Your task to perform on an android device: turn on improve location accuracy Image 0: 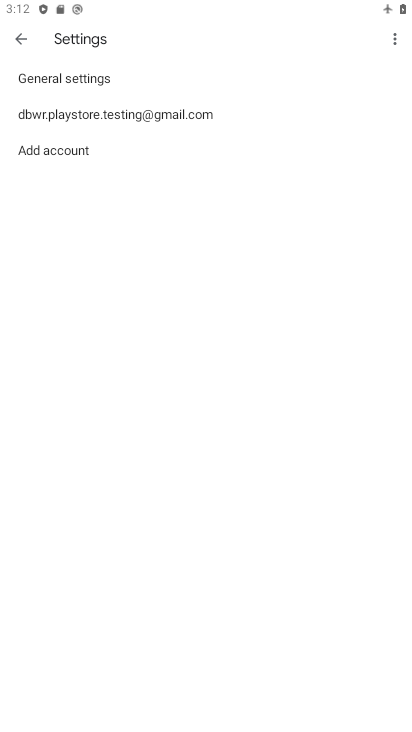
Step 0: press home button
Your task to perform on an android device: turn on improve location accuracy Image 1: 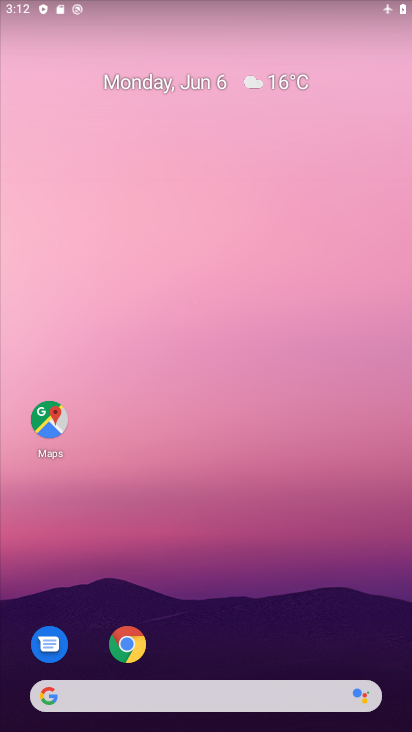
Step 1: drag from (245, 530) to (286, 127)
Your task to perform on an android device: turn on improve location accuracy Image 2: 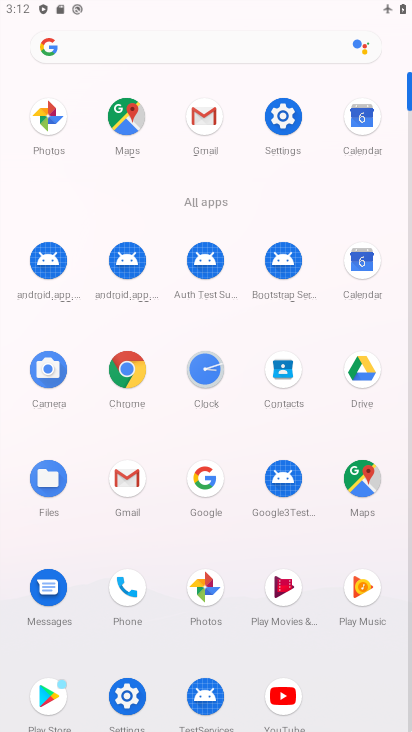
Step 2: click (283, 118)
Your task to perform on an android device: turn on improve location accuracy Image 3: 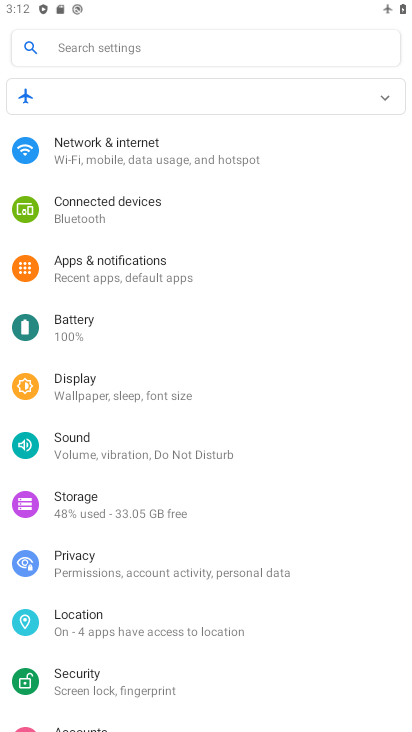
Step 3: click (134, 628)
Your task to perform on an android device: turn on improve location accuracy Image 4: 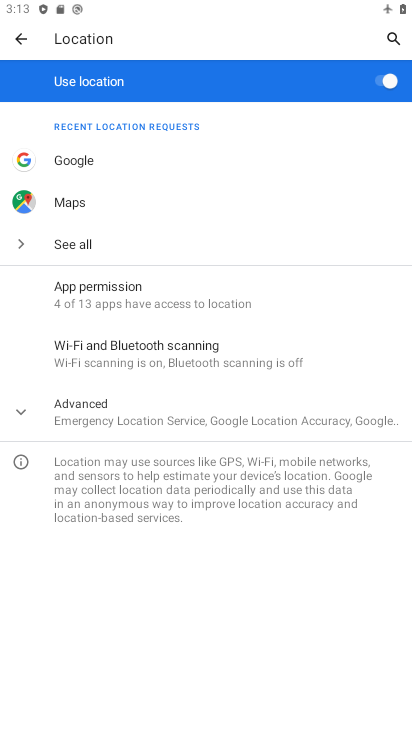
Step 4: click (127, 419)
Your task to perform on an android device: turn on improve location accuracy Image 5: 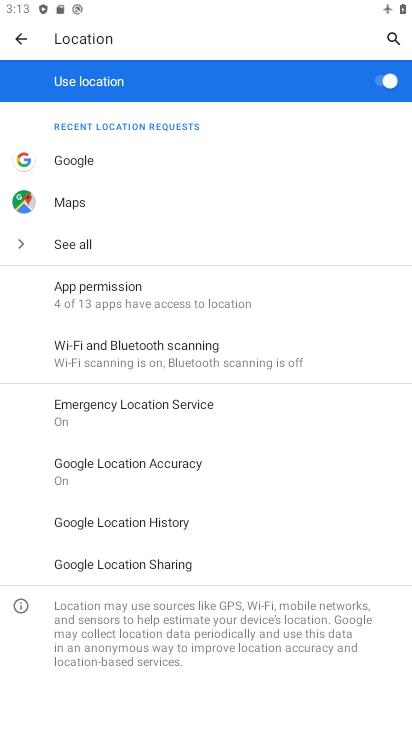
Step 5: click (149, 471)
Your task to perform on an android device: turn on improve location accuracy Image 6: 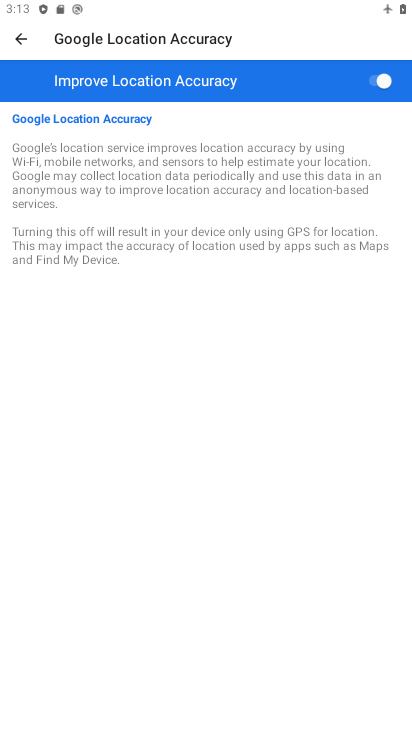
Step 6: task complete